Your task to perform on an android device: turn on notifications settings in the gmail app Image 0: 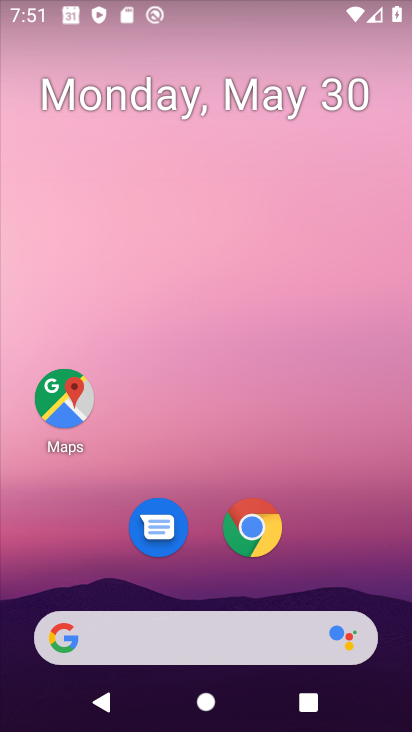
Step 0: drag from (338, 576) to (296, 28)
Your task to perform on an android device: turn on notifications settings in the gmail app Image 1: 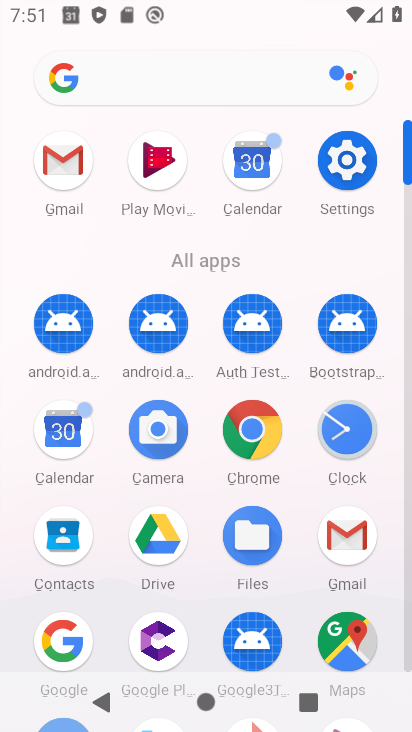
Step 1: click (56, 159)
Your task to perform on an android device: turn on notifications settings in the gmail app Image 2: 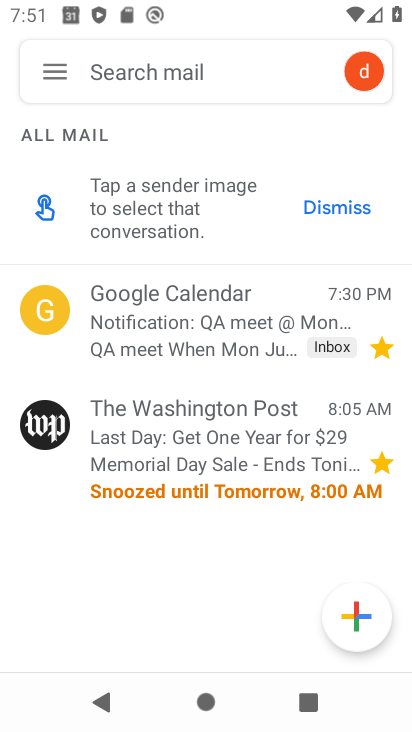
Step 2: click (47, 79)
Your task to perform on an android device: turn on notifications settings in the gmail app Image 3: 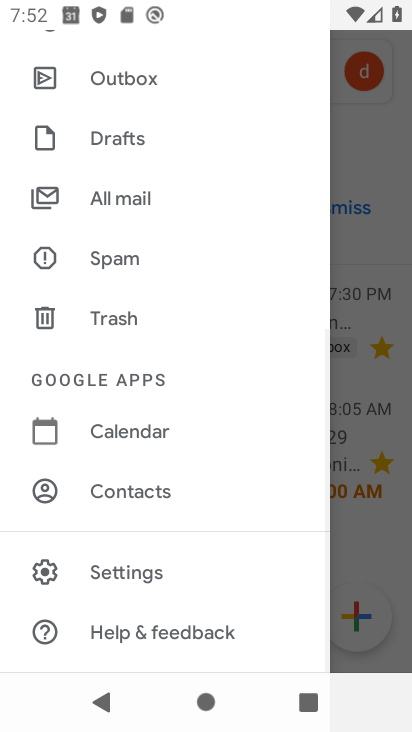
Step 3: click (147, 573)
Your task to perform on an android device: turn on notifications settings in the gmail app Image 4: 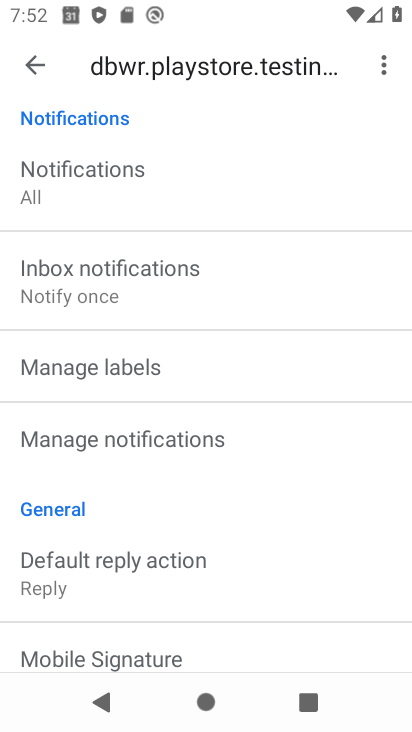
Step 4: click (82, 440)
Your task to perform on an android device: turn on notifications settings in the gmail app Image 5: 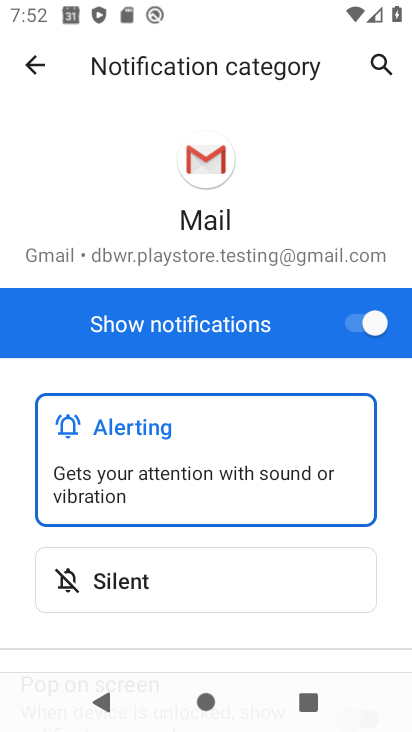
Step 5: task complete